Your task to perform on an android device: set the timer Image 0: 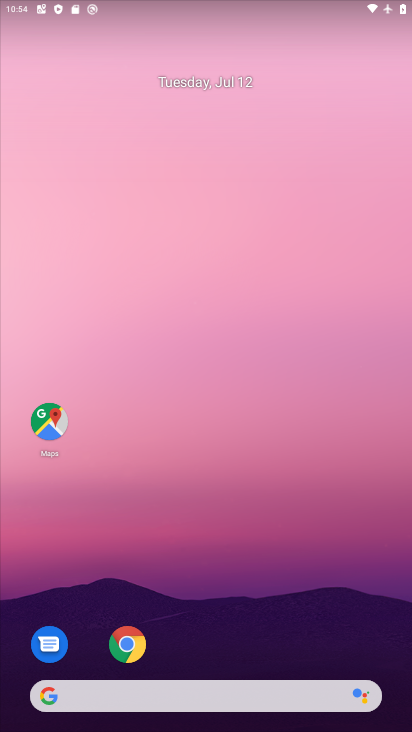
Step 0: drag from (241, 638) to (253, 1)
Your task to perform on an android device: set the timer Image 1: 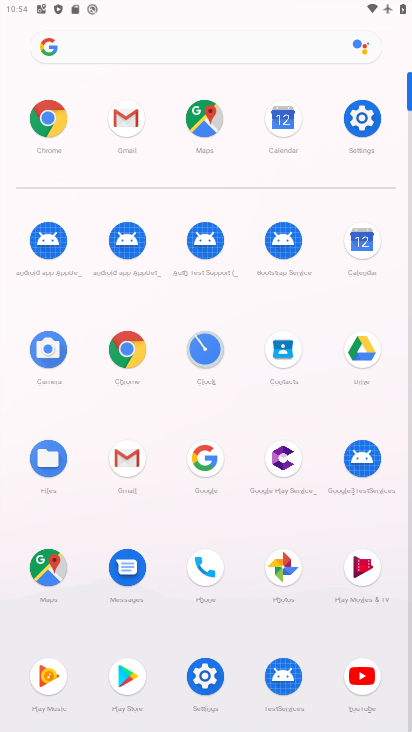
Step 1: click (199, 346)
Your task to perform on an android device: set the timer Image 2: 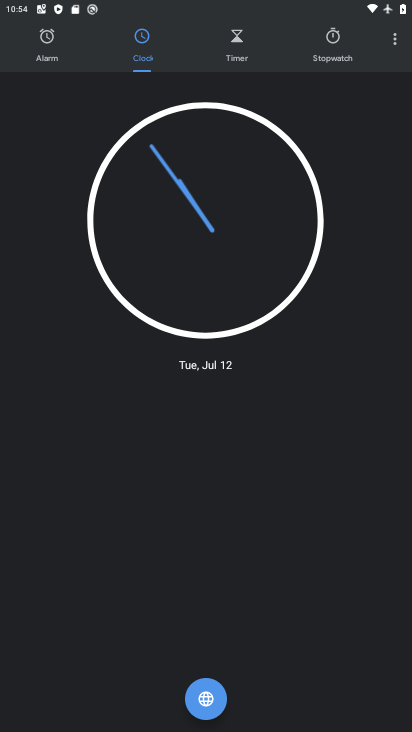
Step 2: click (240, 50)
Your task to perform on an android device: set the timer Image 3: 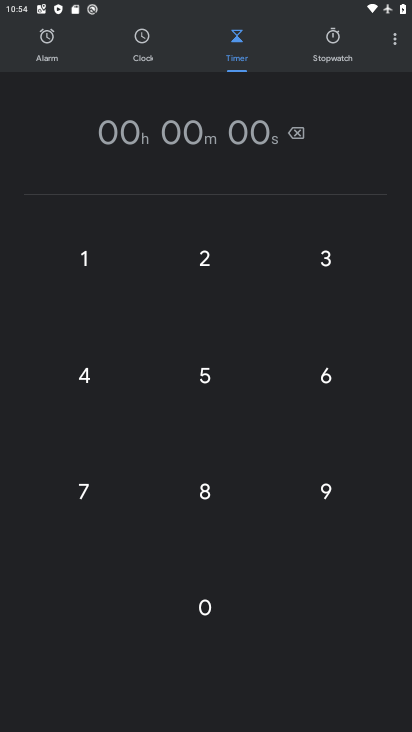
Step 3: click (129, 34)
Your task to perform on an android device: set the timer Image 4: 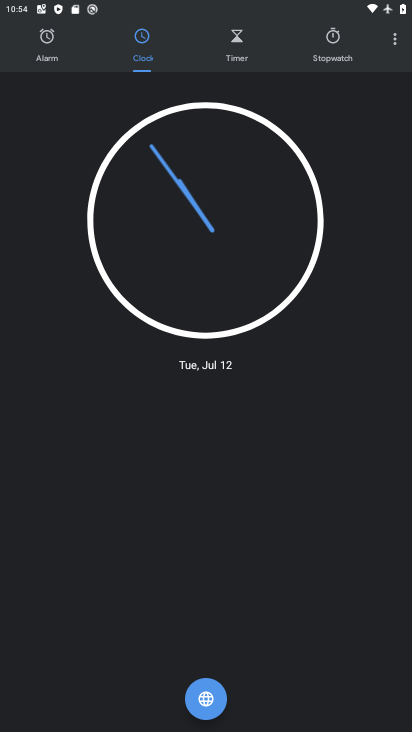
Step 4: click (210, 41)
Your task to perform on an android device: set the timer Image 5: 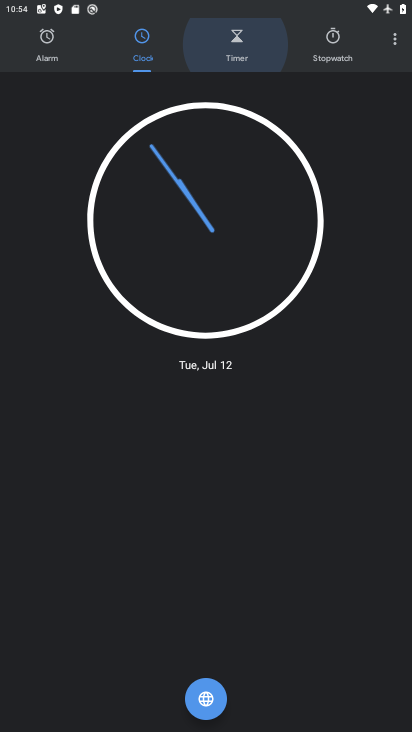
Step 5: click (233, 57)
Your task to perform on an android device: set the timer Image 6: 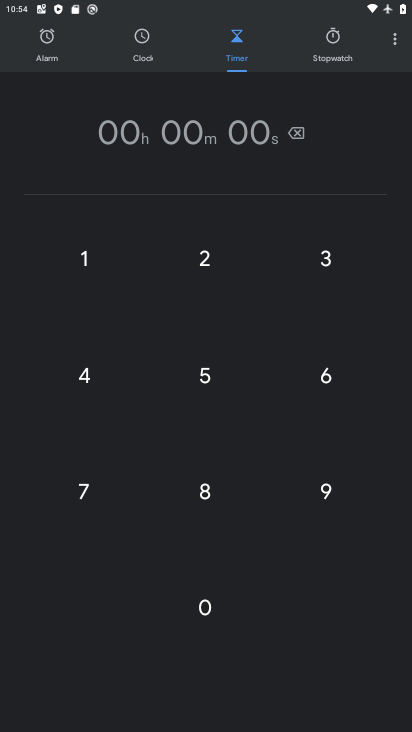
Step 6: click (208, 258)
Your task to perform on an android device: set the timer Image 7: 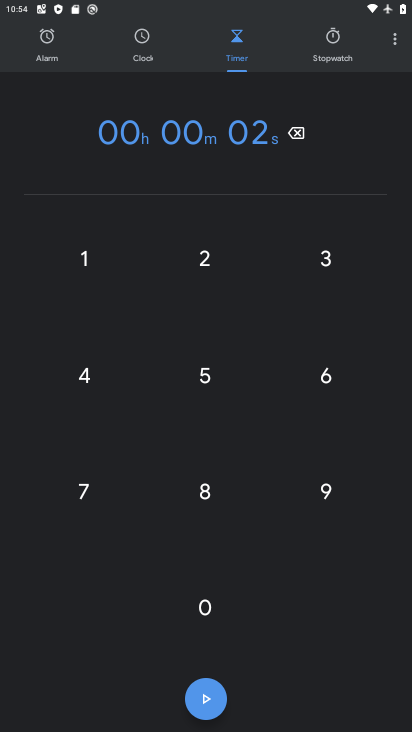
Step 7: drag from (222, 384) to (192, 272)
Your task to perform on an android device: set the timer Image 8: 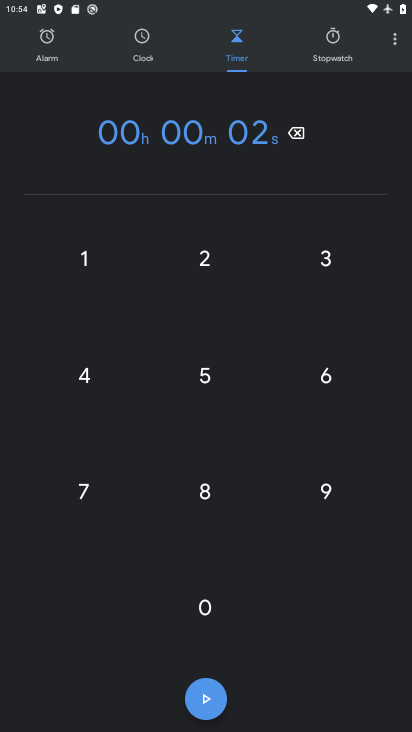
Step 8: click (208, 364)
Your task to perform on an android device: set the timer Image 9: 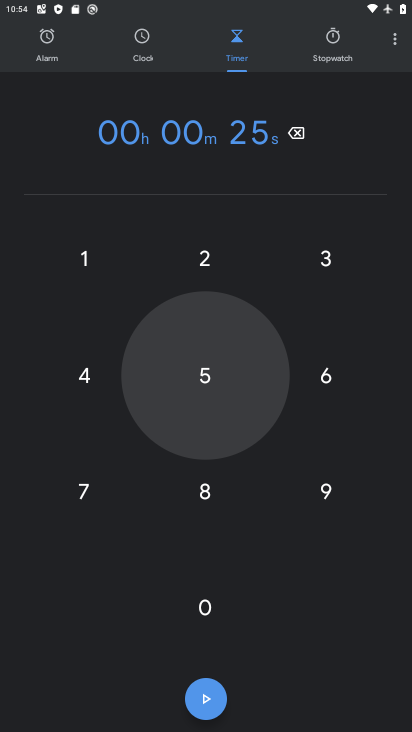
Step 9: click (218, 261)
Your task to perform on an android device: set the timer Image 10: 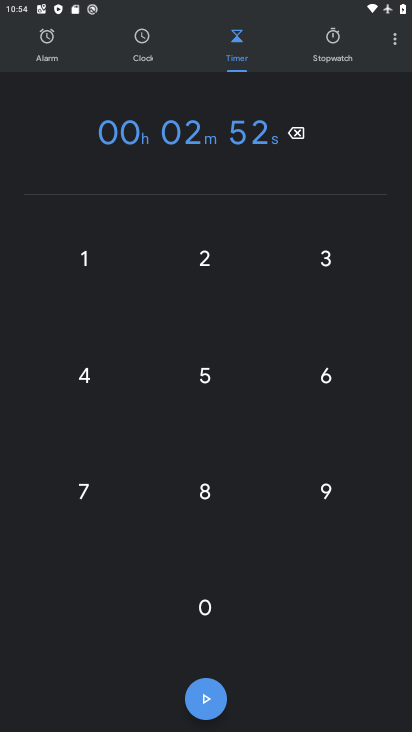
Step 10: click (216, 344)
Your task to perform on an android device: set the timer Image 11: 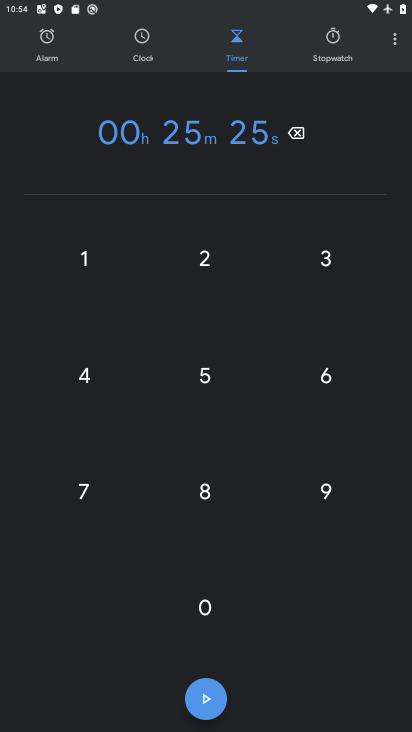
Step 11: click (201, 281)
Your task to perform on an android device: set the timer Image 12: 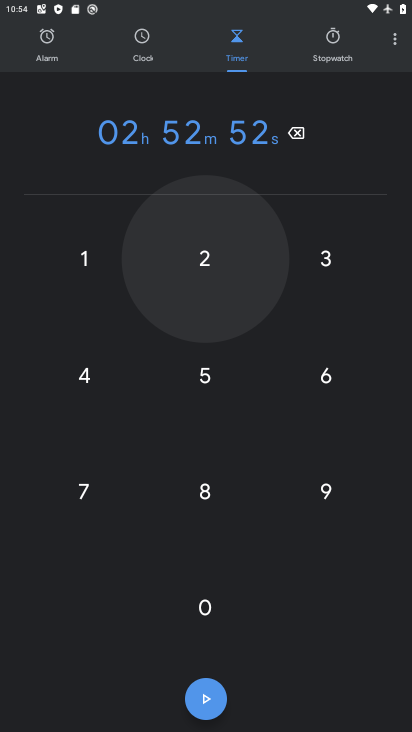
Step 12: click (211, 344)
Your task to perform on an android device: set the timer Image 13: 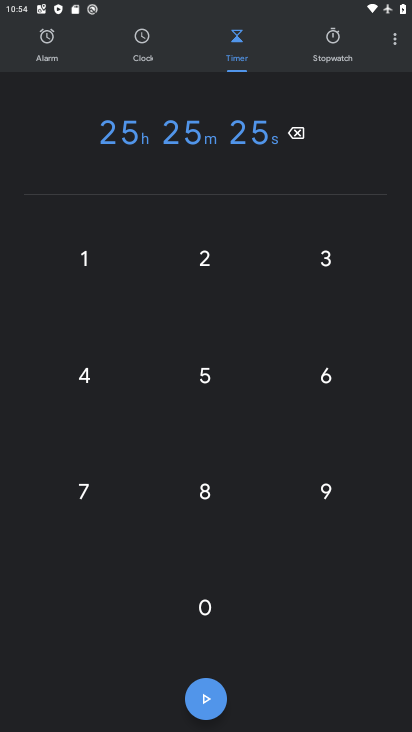
Step 13: click (208, 696)
Your task to perform on an android device: set the timer Image 14: 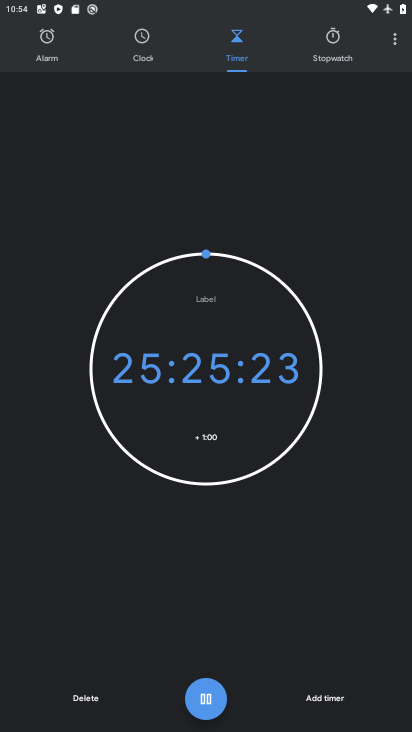
Step 14: task complete